Your task to perform on an android device: toggle location history Image 0: 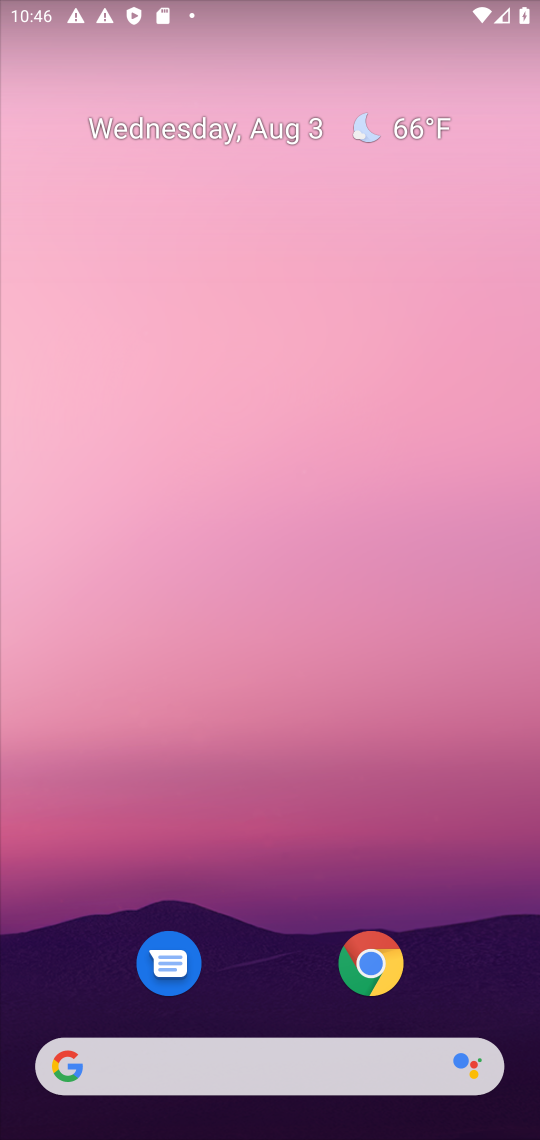
Step 0: drag from (474, 973) to (428, 135)
Your task to perform on an android device: toggle location history Image 1: 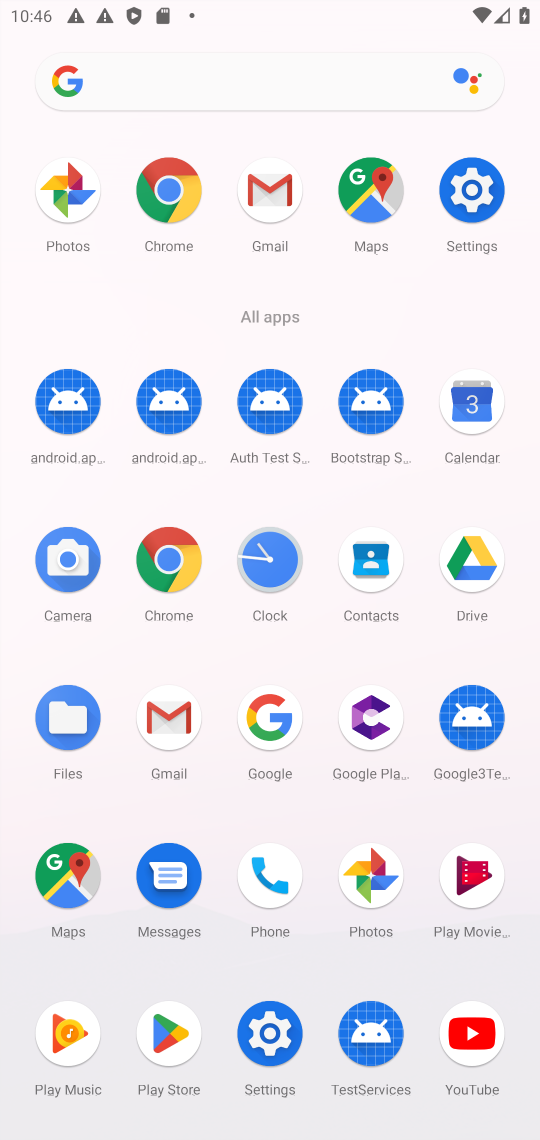
Step 1: click (256, 1044)
Your task to perform on an android device: toggle location history Image 2: 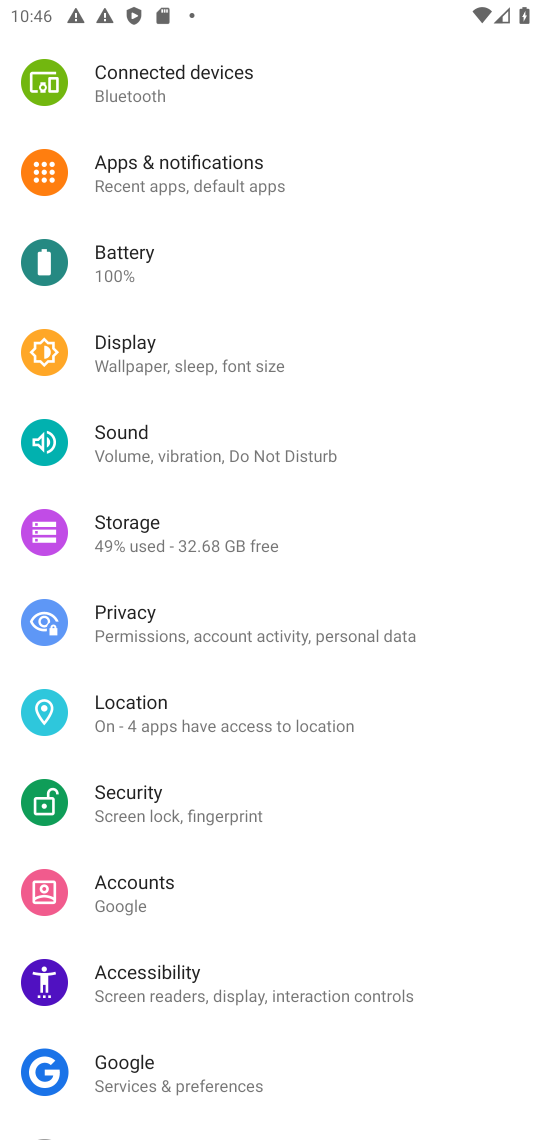
Step 2: click (243, 723)
Your task to perform on an android device: toggle location history Image 3: 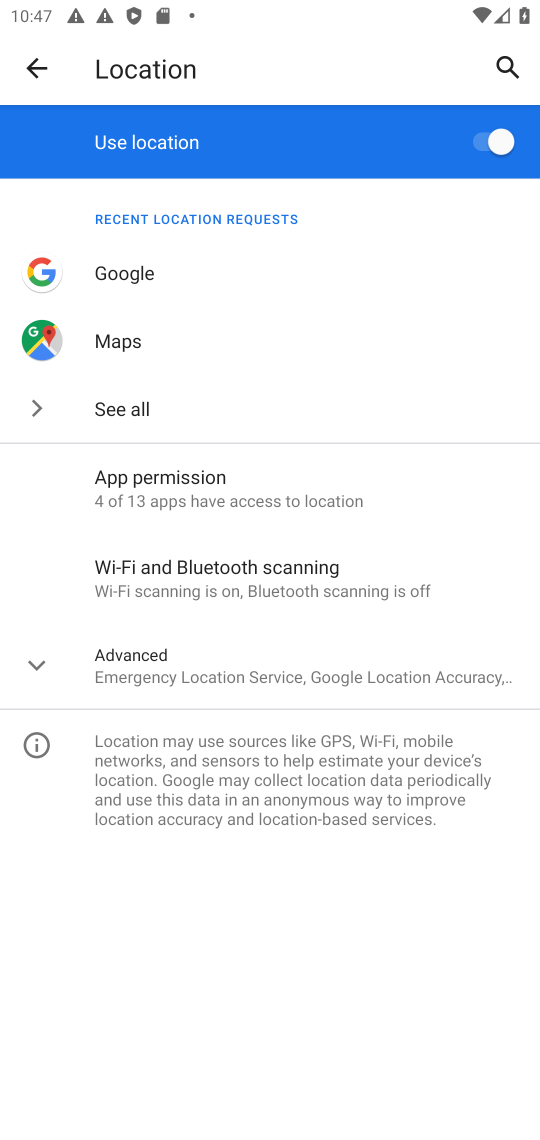
Step 3: click (256, 683)
Your task to perform on an android device: toggle location history Image 4: 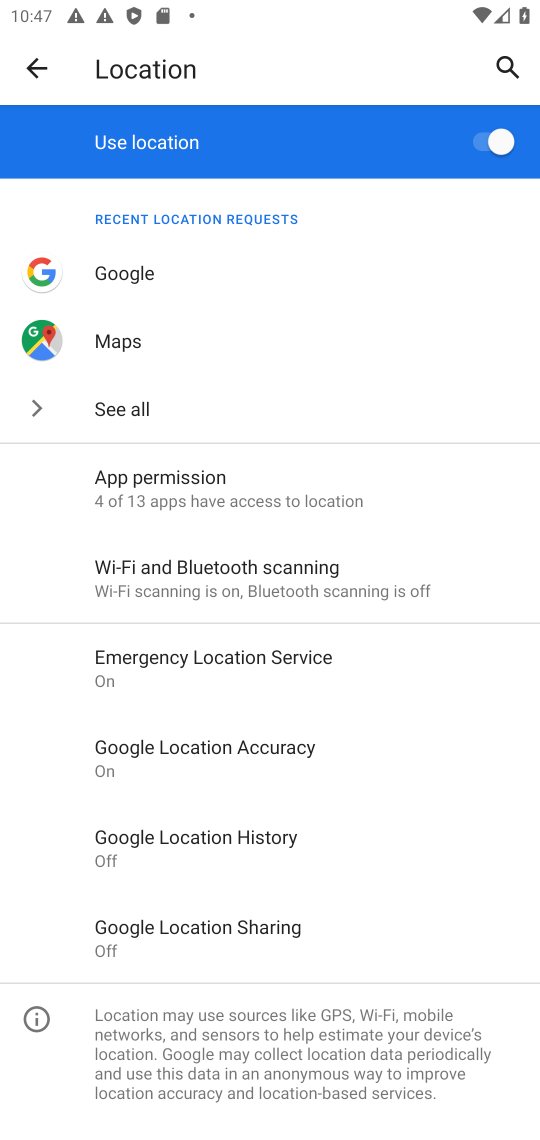
Step 4: click (260, 823)
Your task to perform on an android device: toggle location history Image 5: 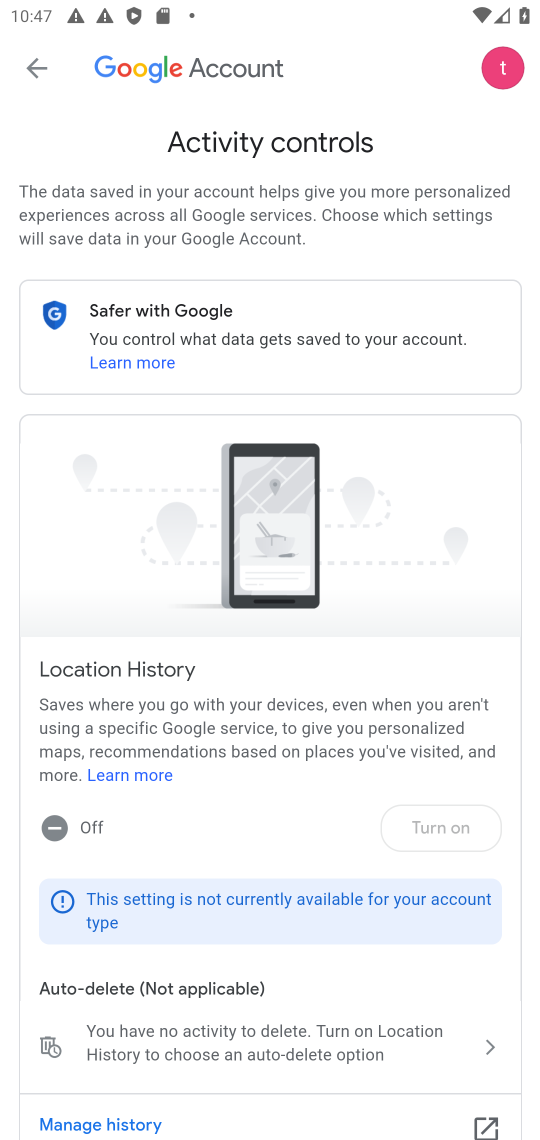
Step 5: task complete